Your task to perform on an android device: turn on javascript in the chrome app Image 0: 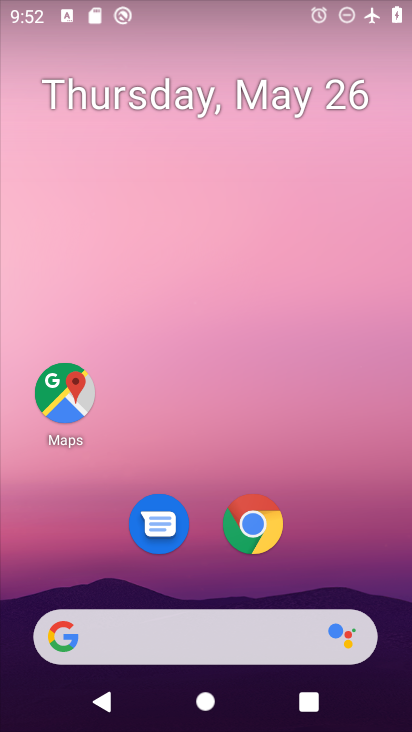
Step 0: click (255, 521)
Your task to perform on an android device: turn on javascript in the chrome app Image 1: 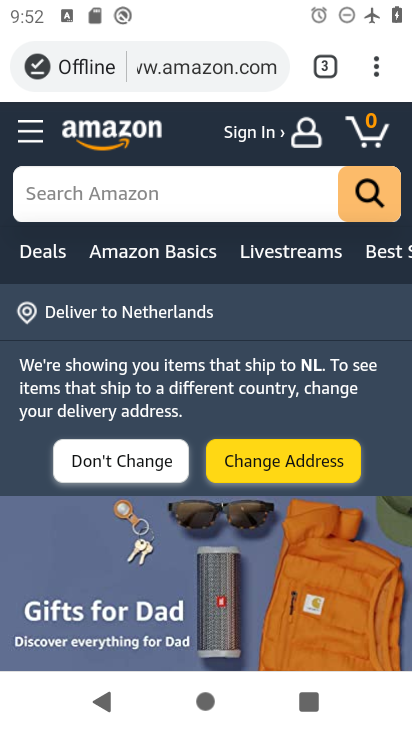
Step 1: click (376, 65)
Your task to perform on an android device: turn on javascript in the chrome app Image 2: 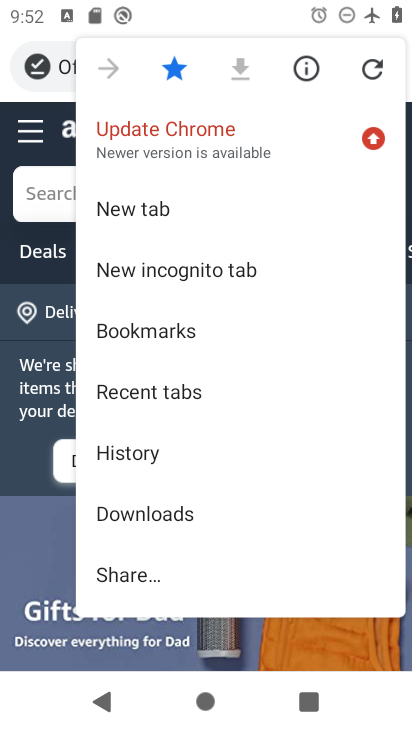
Step 2: drag from (230, 488) to (247, 190)
Your task to perform on an android device: turn on javascript in the chrome app Image 3: 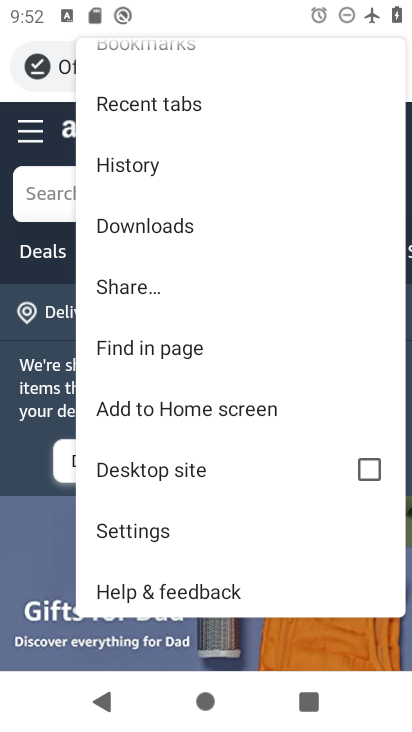
Step 3: click (173, 526)
Your task to perform on an android device: turn on javascript in the chrome app Image 4: 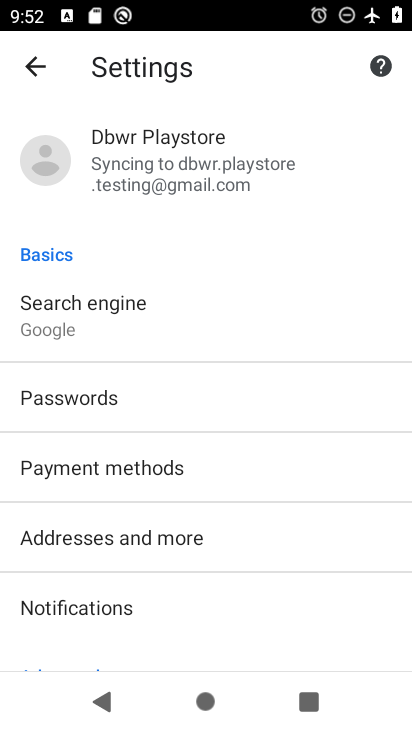
Step 4: drag from (209, 494) to (255, 198)
Your task to perform on an android device: turn on javascript in the chrome app Image 5: 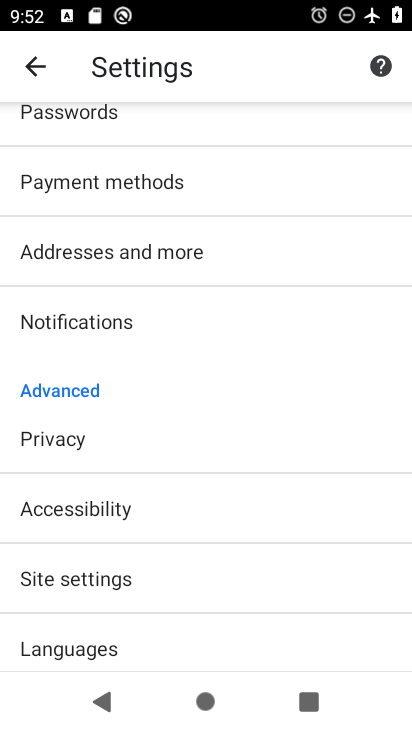
Step 5: click (131, 571)
Your task to perform on an android device: turn on javascript in the chrome app Image 6: 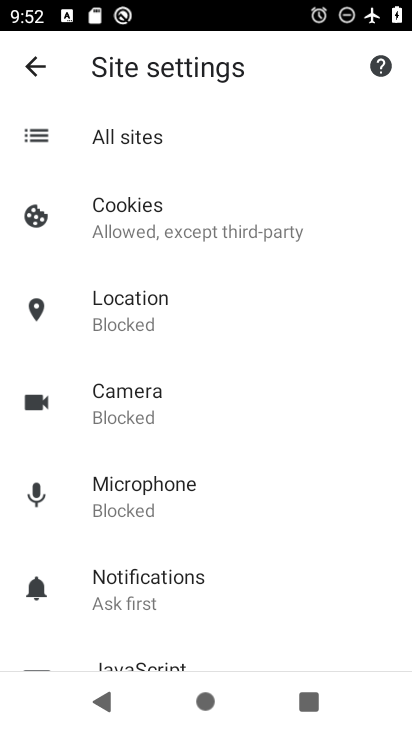
Step 6: drag from (236, 472) to (276, 183)
Your task to perform on an android device: turn on javascript in the chrome app Image 7: 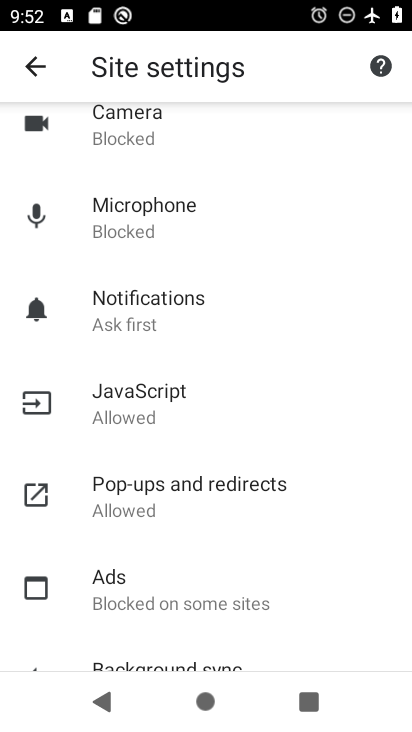
Step 7: click (178, 390)
Your task to perform on an android device: turn on javascript in the chrome app Image 8: 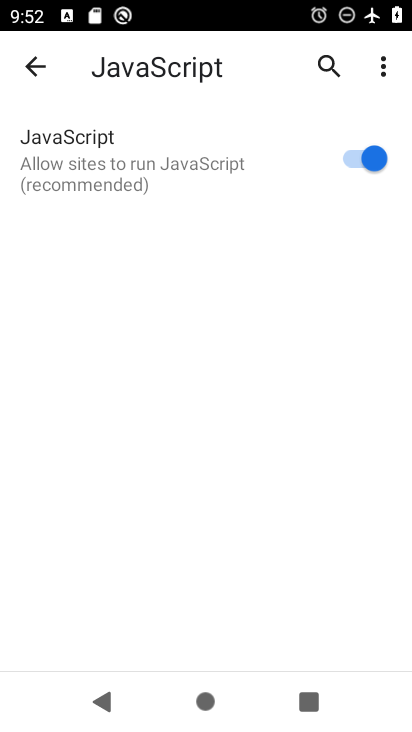
Step 8: task complete